Your task to perform on an android device: empty trash in google photos Image 0: 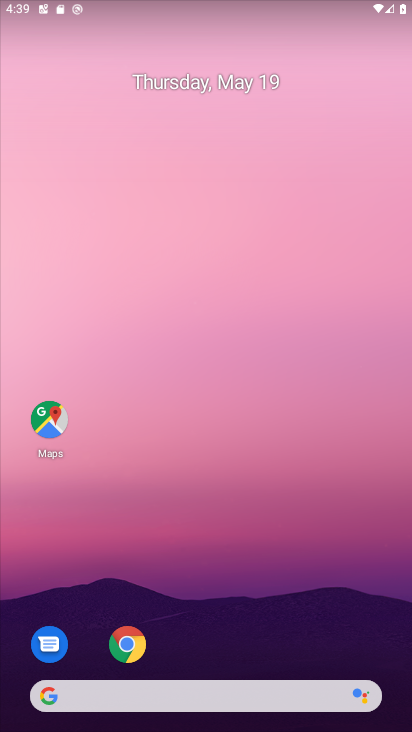
Step 0: press home button
Your task to perform on an android device: empty trash in google photos Image 1: 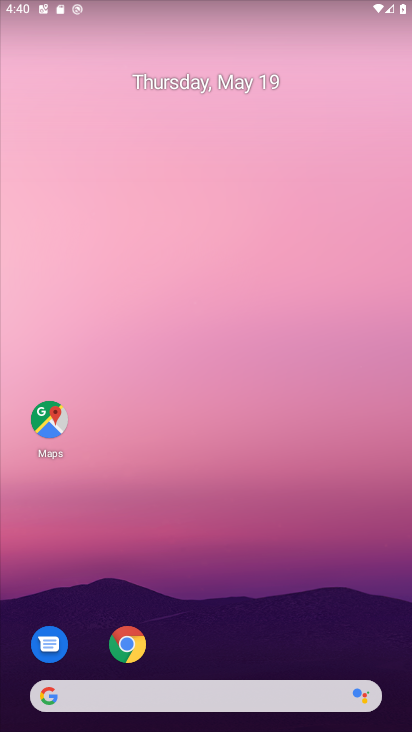
Step 1: drag from (329, 620) to (246, 66)
Your task to perform on an android device: empty trash in google photos Image 2: 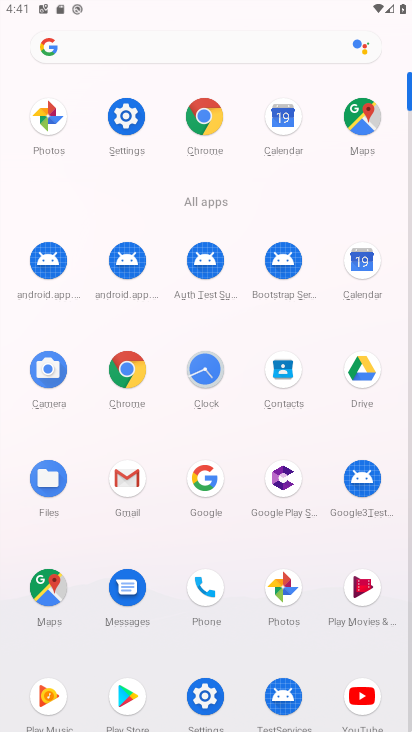
Step 2: click (294, 597)
Your task to perform on an android device: empty trash in google photos Image 3: 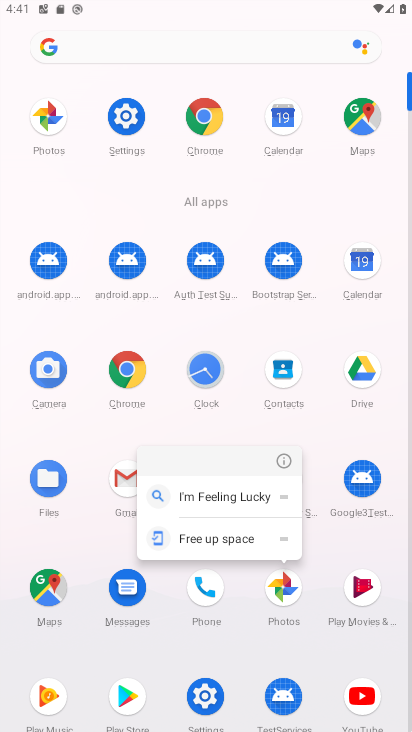
Step 3: click (281, 579)
Your task to perform on an android device: empty trash in google photos Image 4: 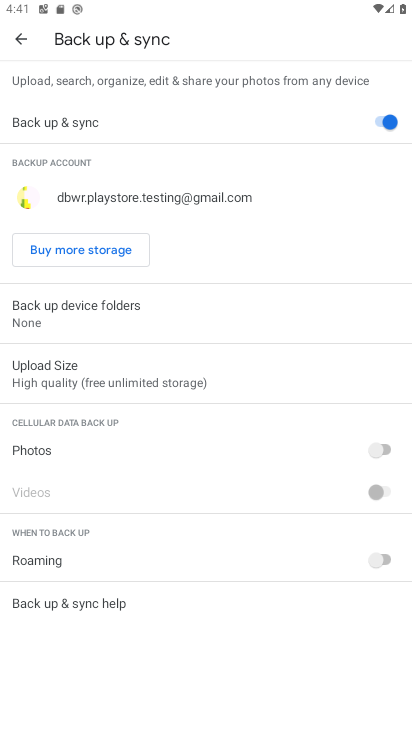
Step 4: click (13, 38)
Your task to perform on an android device: empty trash in google photos Image 5: 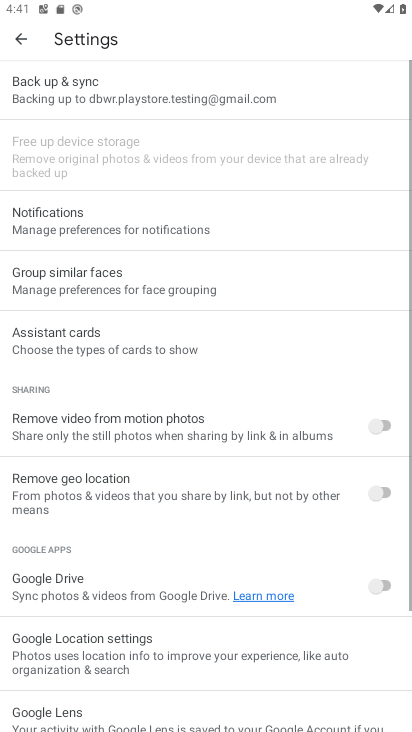
Step 5: click (13, 38)
Your task to perform on an android device: empty trash in google photos Image 6: 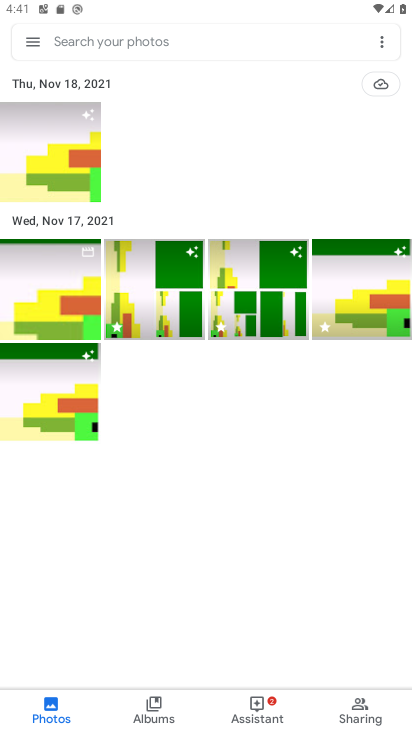
Step 6: click (41, 40)
Your task to perform on an android device: empty trash in google photos Image 7: 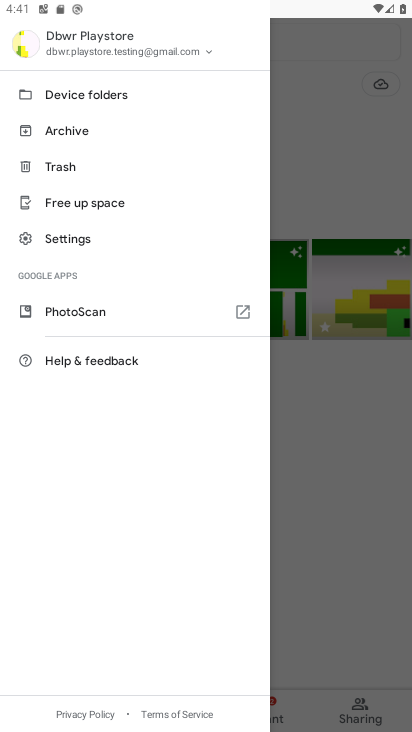
Step 7: click (41, 166)
Your task to perform on an android device: empty trash in google photos Image 8: 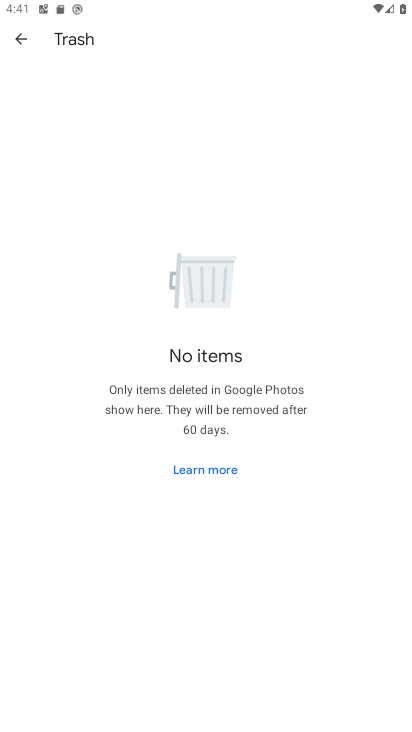
Step 8: task complete